Your task to perform on an android device: allow notifications from all sites in the chrome app Image 0: 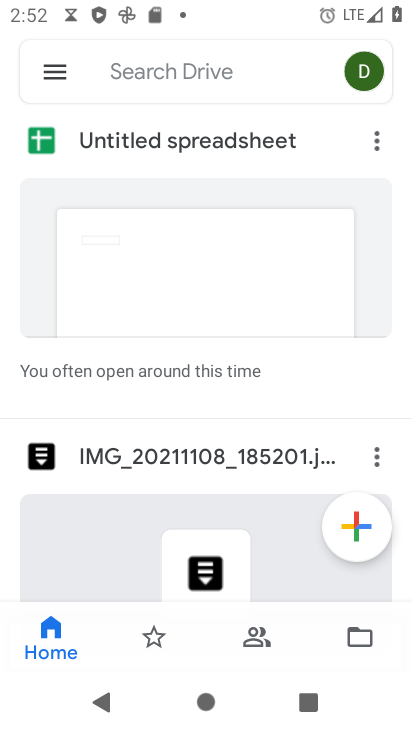
Step 0: press home button
Your task to perform on an android device: allow notifications from all sites in the chrome app Image 1: 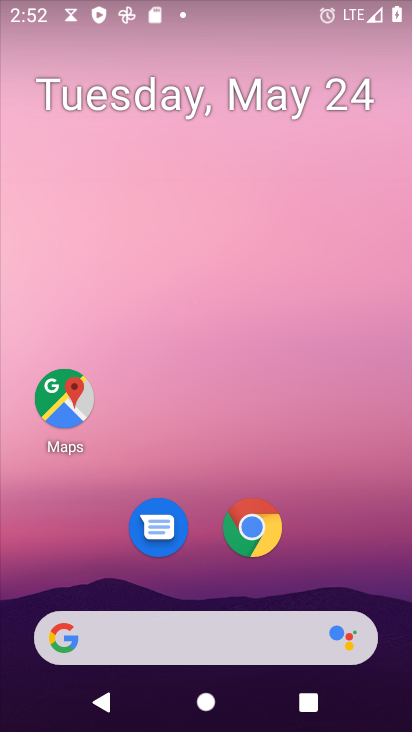
Step 1: click (250, 538)
Your task to perform on an android device: allow notifications from all sites in the chrome app Image 2: 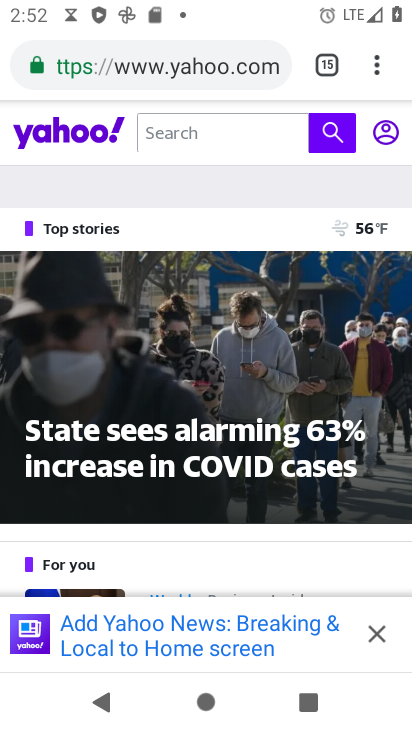
Step 2: drag from (377, 73) to (207, 588)
Your task to perform on an android device: allow notifications from all sites in the chrome app Image 3: 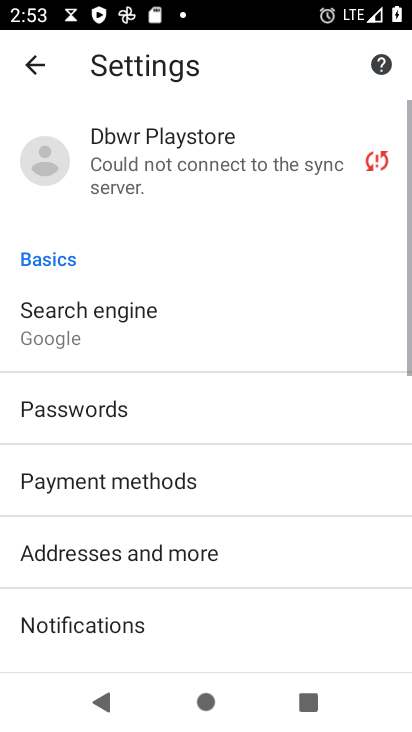
Step 3: drag from (218, 601) to (361, 177)
Your task to perform on an android device: allow notifications from all sites in the chrome app Image 4: 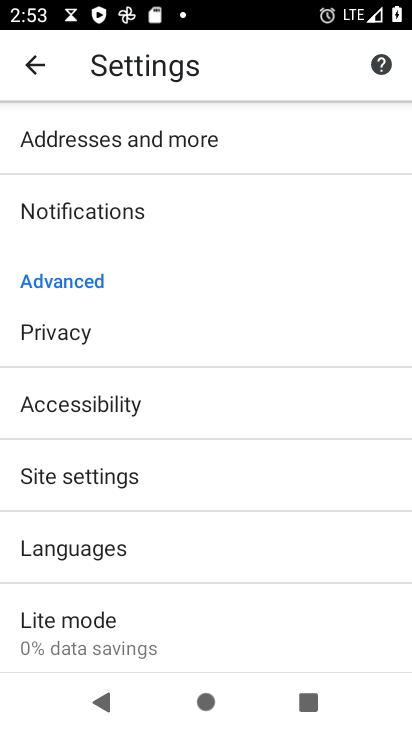
Step 4: click (133, 485)
Your task to perform on an android device: allow notifications from all sites in the chrome app Image 5: 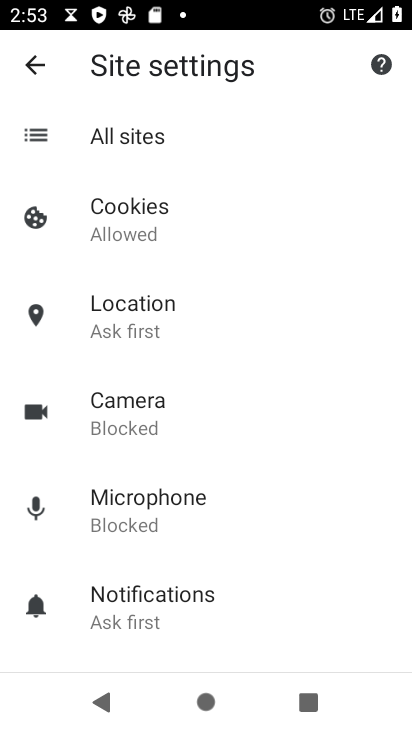
Step 5: click (196, 589)
Your task to perform on an android device: allow notifications from all sites in the chrome app Image 6: 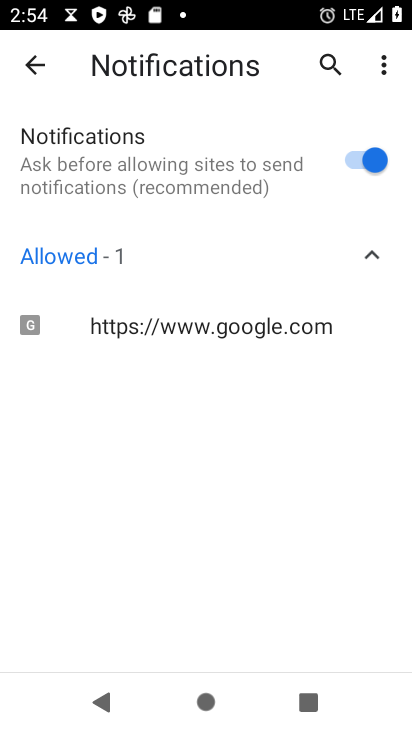
Step 6: task complete